Your task to perform on an android device: Open the phone app and click the voicemail tab. Image 0: 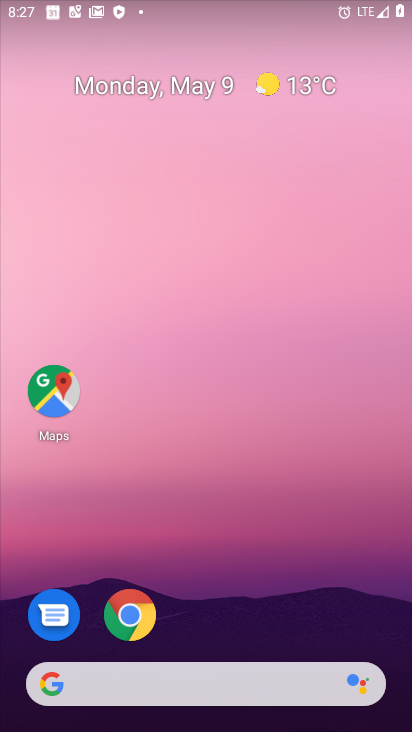
Step 0: drag from (188, 615) to (262, 223)
Your task to perform on an android device: Open the phone app and click the voicemail tab. Image 1: 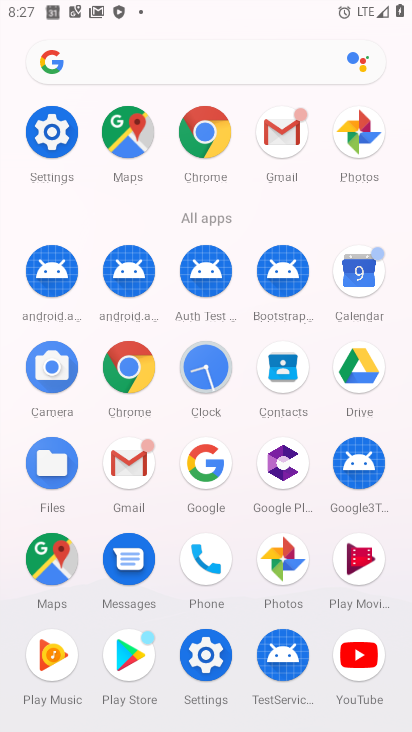
Step 1: click (215, 564)
Your task to perform on an android device: Open the phone app and click the voicemail tab. Image 2: 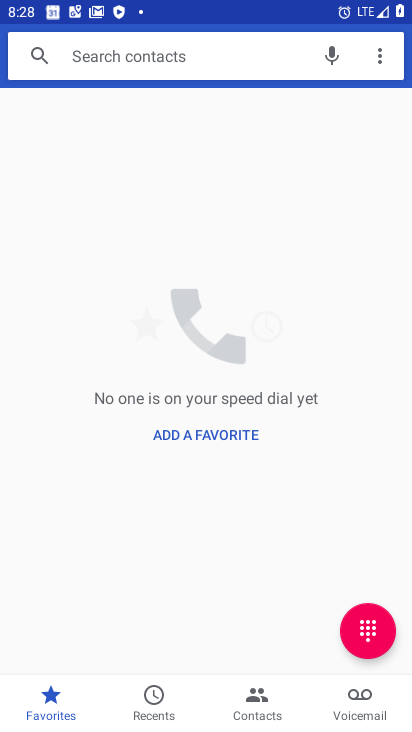
Step 2: click (364, 715)
Your task to perform on an android device: Open the phone app and click the voicemail tab. Image 3: 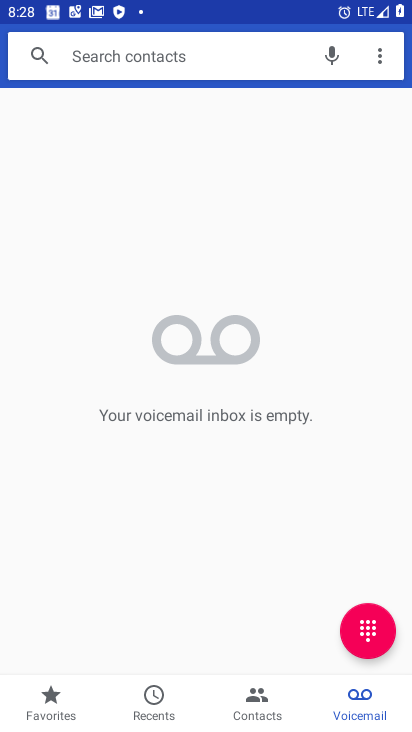
Step 3: task complete